Your task to perform on an android device: turn smart compose on in the gmail app Image 0: 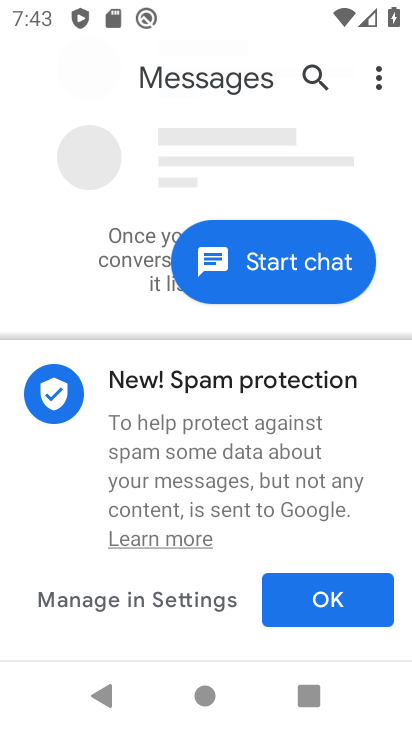
Step 0: press home button
Your task to perform on an android device: turn smart compose on in the gmail app Image 1: 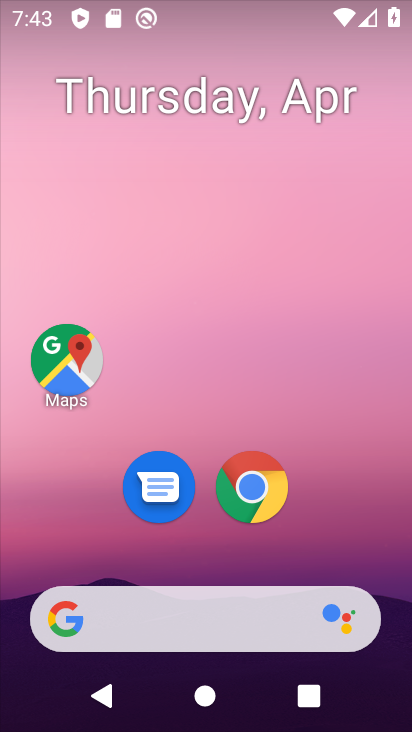
Step 1: drag from (339, 522) to (249, 67)
Your task to perform on an android device: turn smart compose on in the gmail app Image 2: 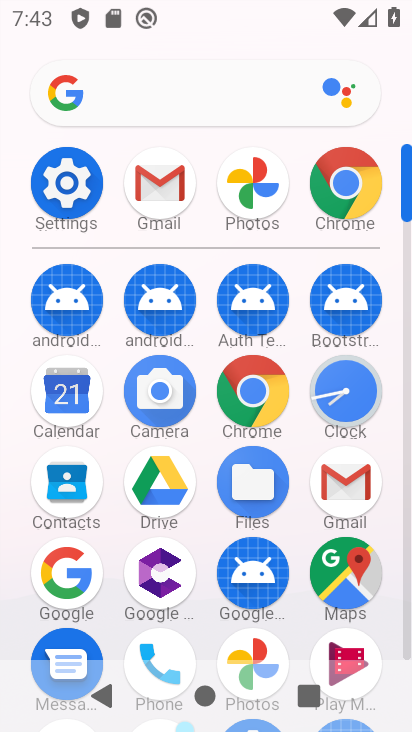
Step 2: click (373, 465)
Your task to perform on an android device: turn smart compose on in the gmail app Image 3: 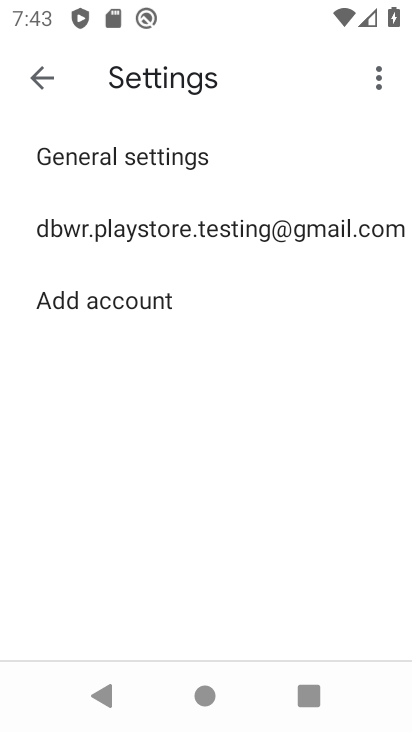
Step 3: click (240, 236)
Your task to perform on an android device: turn smart compose on in the gmail app Image 4: 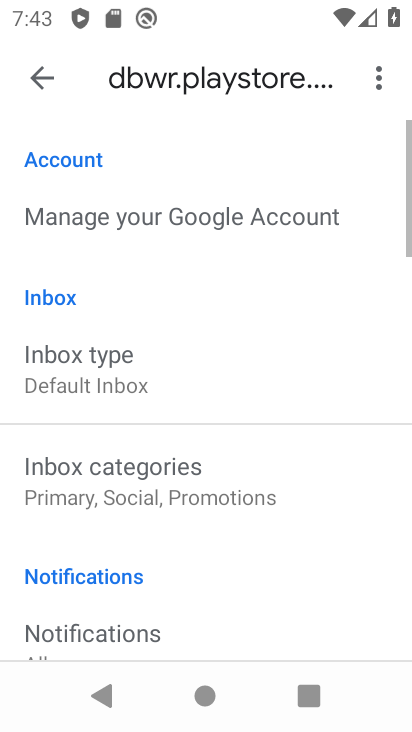
Step 4: task complete